Your task to perform on an android device: clear all cookies in the chrome app Image 0: 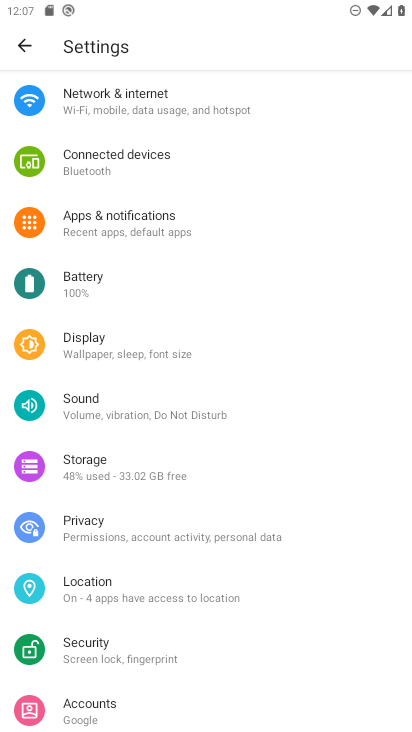
Step 0: press home button
Your task to perform on an android device: clear all cookies in the chrome app Image 1: 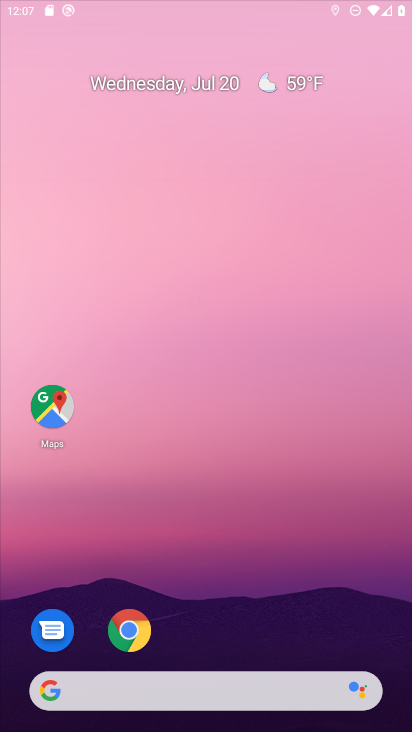
Step 1: drag from (168, 709) to (217, 7)
Your task to perform on an android device: clear all cookies in the chrome app Image 2: 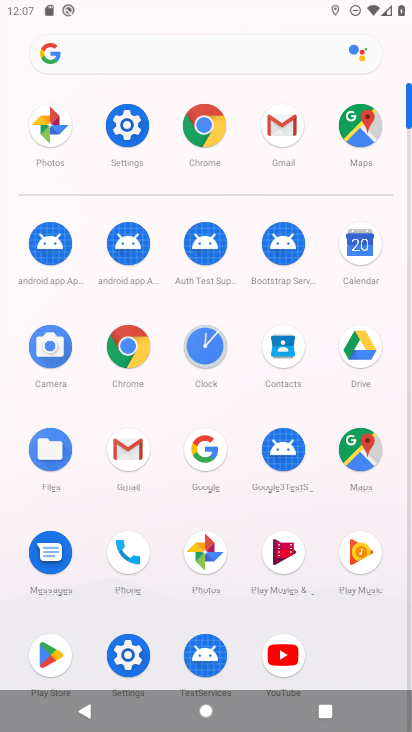
Step 2: click (146, 354)
Your task to perform on an android device: clear all cookies in the chrome app Image 3: 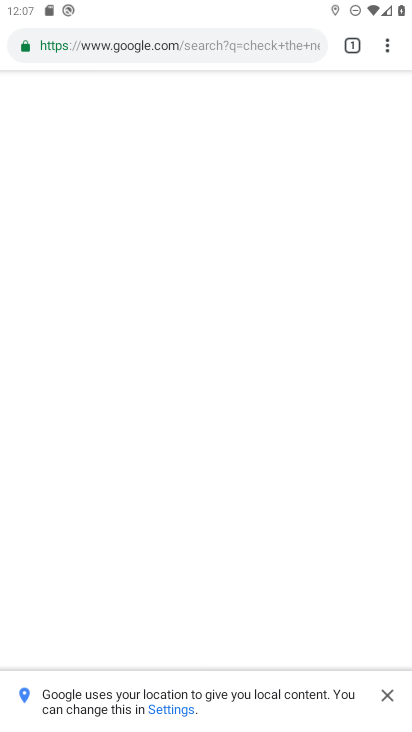
Step 3: drag from (391, 37) to (225, 514)
Your task to perform on an android device: clear all cookies in the chrome app Image 4: 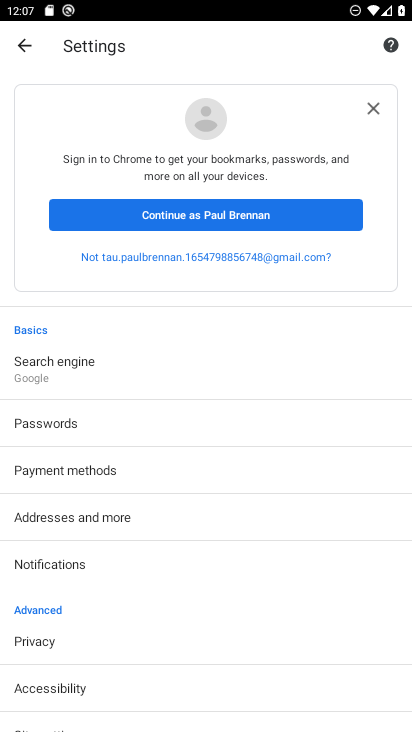
Step 4: drag from (123, 593) to (175, 241)
Your task to perform on an android device: clear all cookies in the chrome app Image 5: 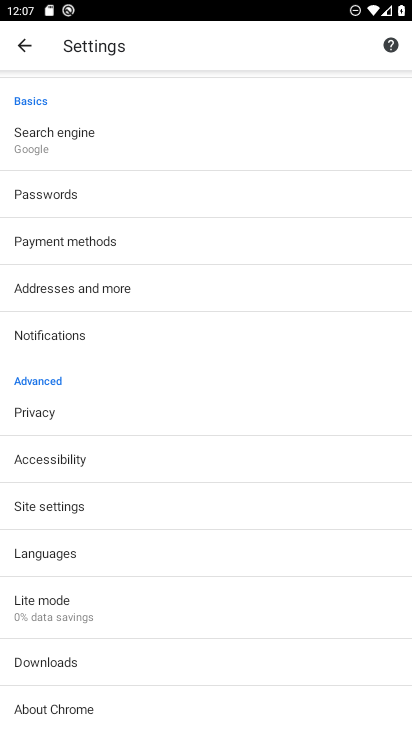
Step 5: click (30, 424)
Your task to perform on an android device: clear all cookies in the chrome app Image 6: 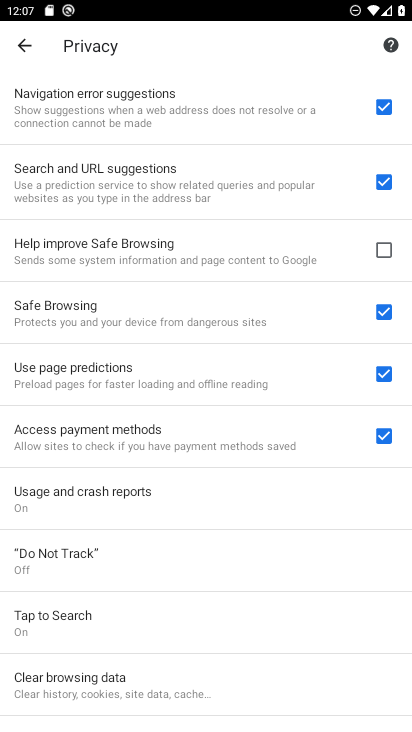
Step 6: click (119, 700)
Your task to perform on an android device: clear all cookies in the chrome app Image 7: 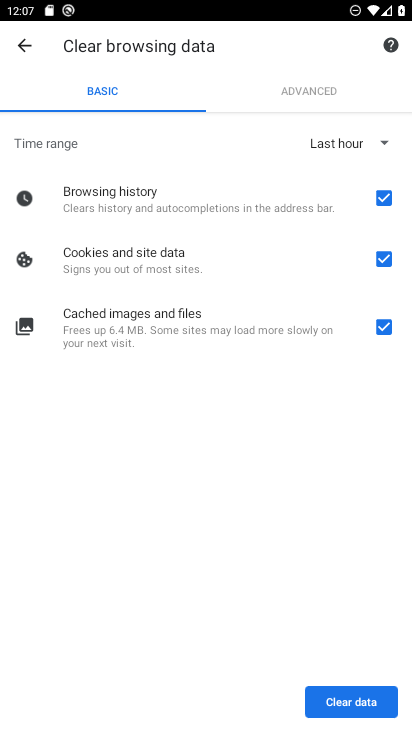
Step 7: click (365, 699)
Your task to perform on an android device: clear all cookies in the chrome app Image 8: 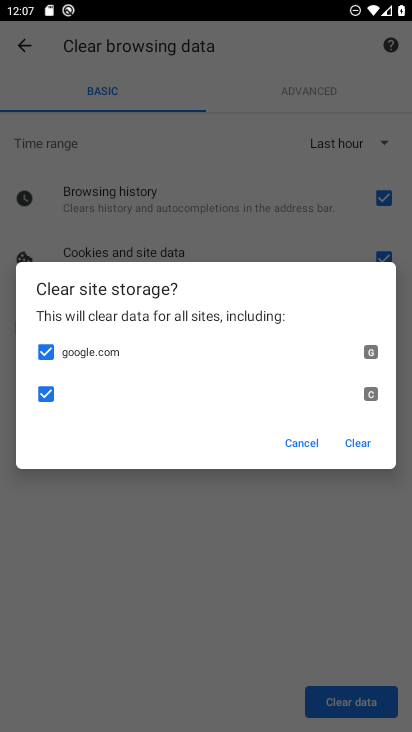
Step 8: click (346, 443)
Your task to perform on an android device: clear all cookies in the chrome app Image 9: 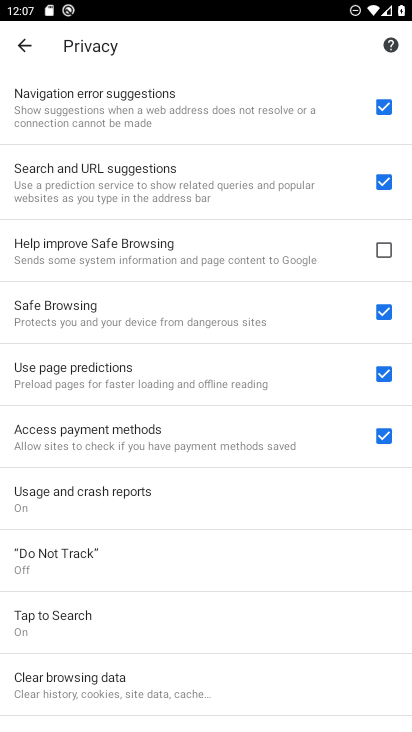
Step 9: task complete